Your task to perform on an android device: Open display settings Image 0: 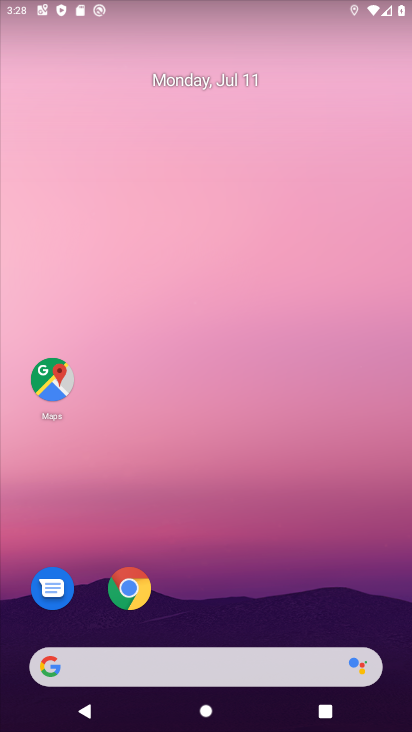
Step 0: drag from (220, 648) to (282, 206)
Your task to perform on an android device: Open display settings Image 1: 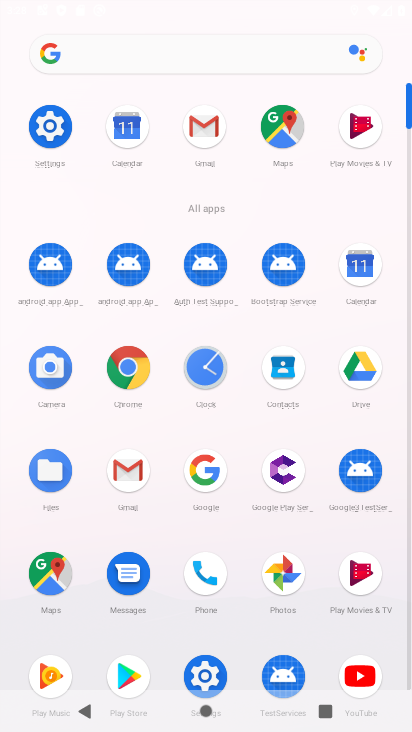
Step 1: click (55, 126)
Your task to perform on an android device: Open display settings Image 2: 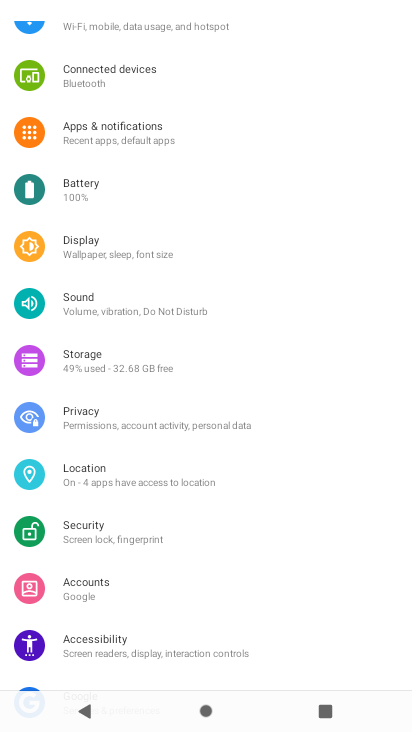
Step 2: click (73, 253)
Your task to perform on an android device: Open display settings Image 3: 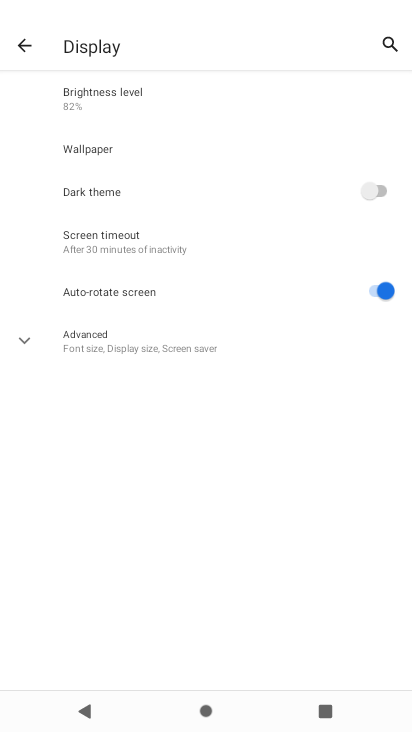
Step 3: task complete